Your task to perform on an android device: Open Google Maps and go to "Timeline" Image 0: 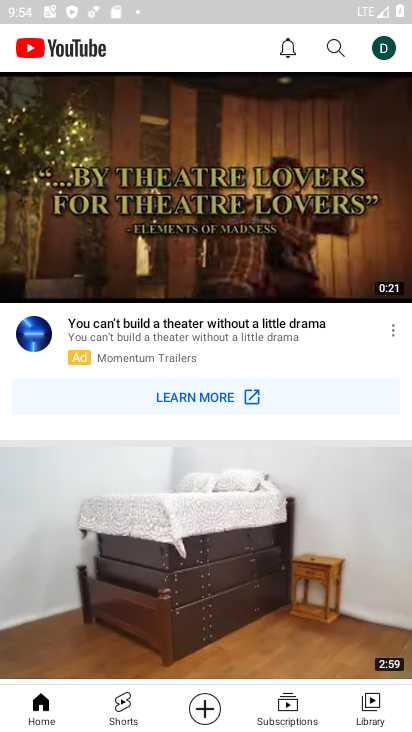
Step 0: press home button
Your task to perform on an android device: Open Google Maps and go to "Timeline" Image 1: 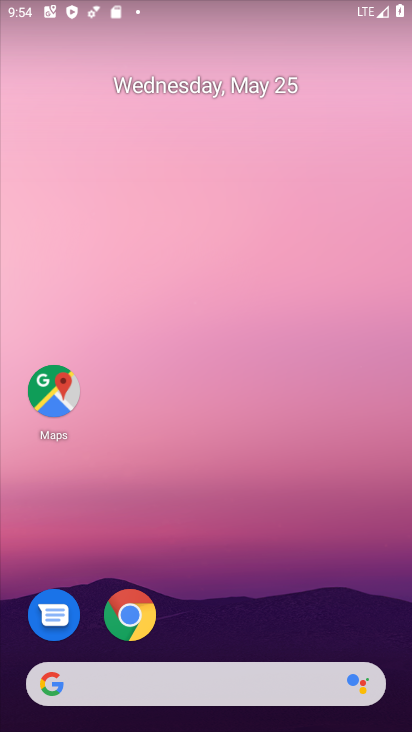
Step 1: click (62, 387)
Your task to perform on an android device: Open Google Maps and go to "Timeline" Image 2: 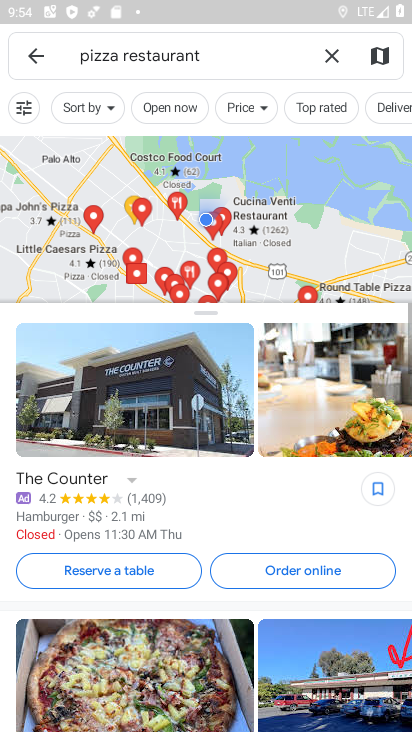
Step 2: click (32, 55)
Your task to perform on an android device: Open Google Maps and go to "Timeline" Image 3: 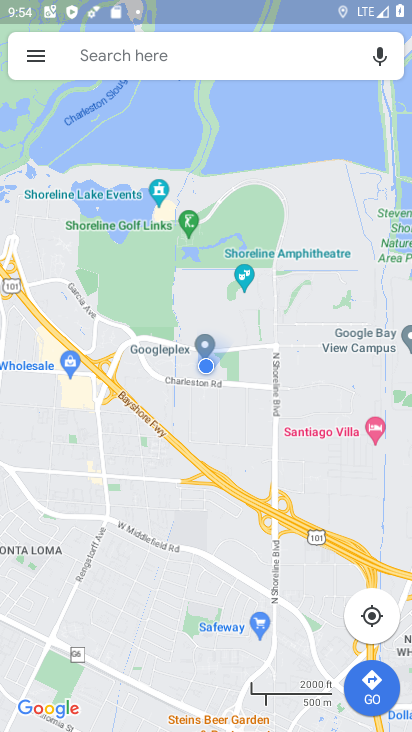
Step 3: click (32, 55)
Your task to perform on an android device: Open Google Maps and go to "Timeline" Image 4: 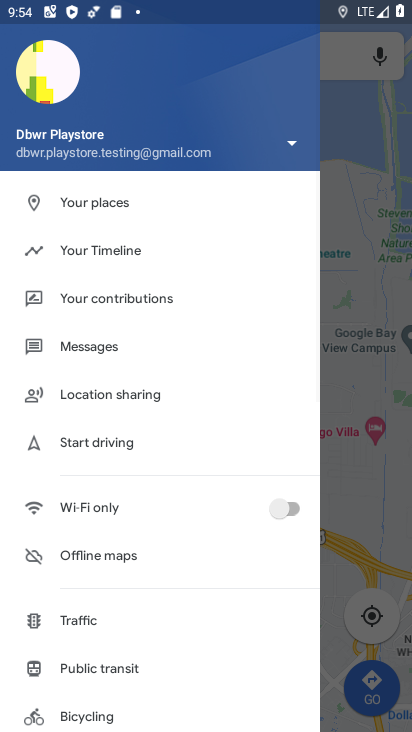
Step 4: click (89, 243)
Your task to perform on an android device: Open Google Maps and go to "Timeline" Image 5: 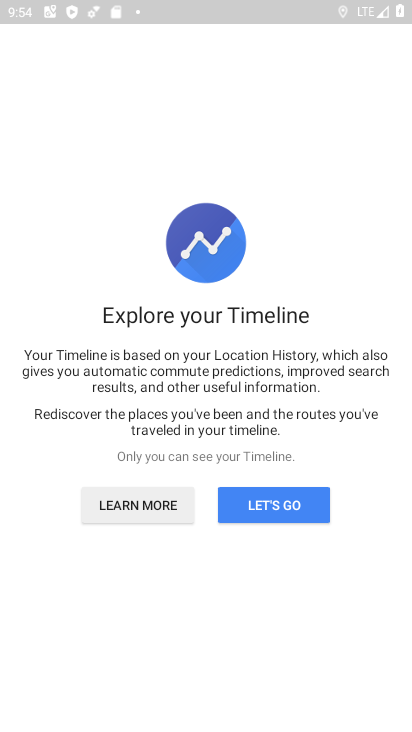
Step 5: click (276, 508)
Your task to perform on an android device: Open Google Maps and go to "Timeline" Image 6: 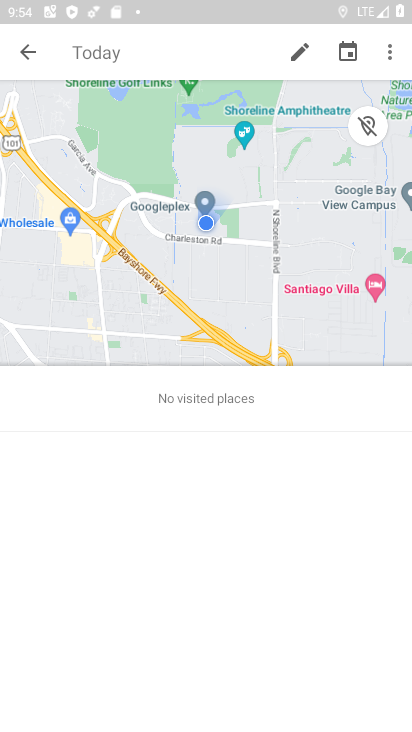
Step 6: task complete